Your task to perform on an android device: Open the calendar app, open the side menu, and click the "Day" option Image 0: 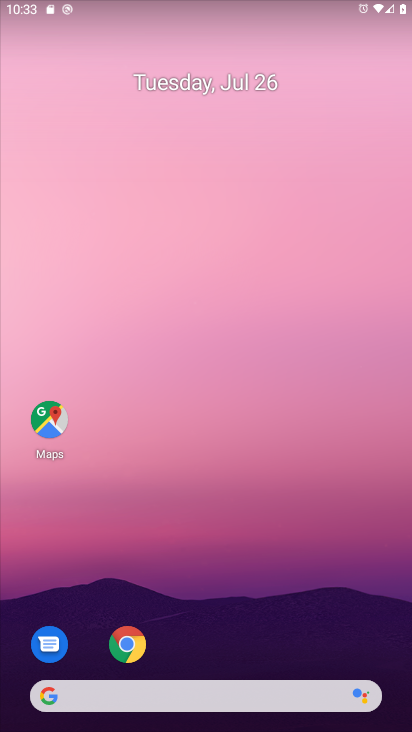
Step 0: drag from (187, 646) to (280, 1)
Your task to perform on an android device: Open the calendar app, open the side menu, and click the "Day" option Image 1: 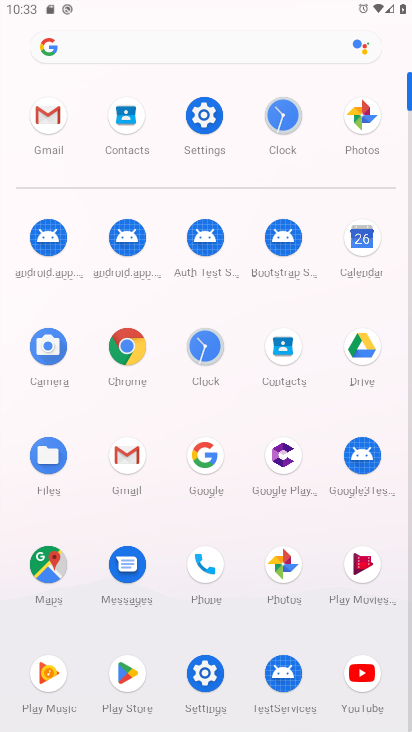
Step 1: click (362, 245)
Your task to perform on an android device: Open the calendar app, open the side menu, and click the "Day" option Image 2: 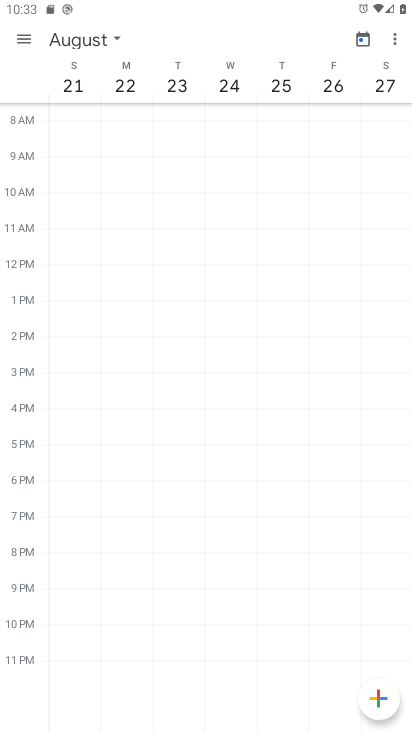
Step 2: click (25, 48)
Your task to perform on an android device: Open the calendar app, open the side menu, and click the "Day" option Image 3: 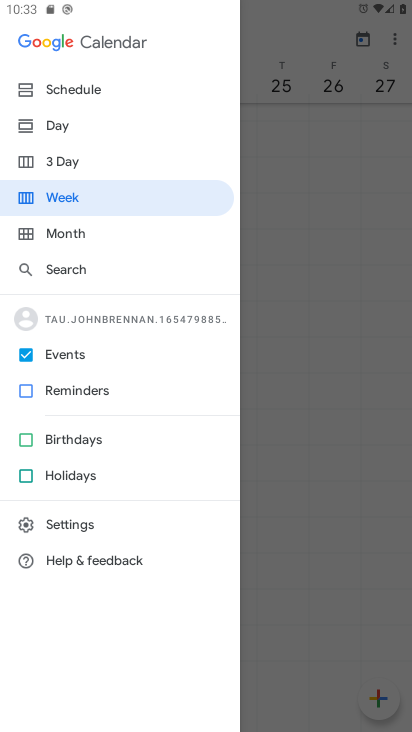
Step 3: click (69, 125)
Your task to perform on an android device: Open the calendar app, open the side menu, and click the "Day" option Image 4: 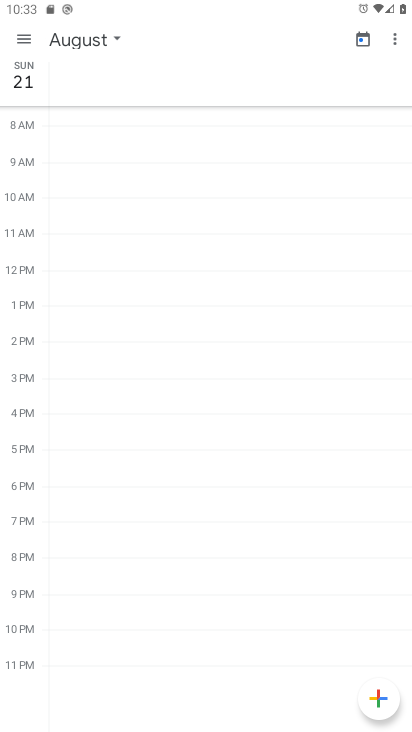
Step 4: task complete